Your task to perform on an android device: Turn on the flashlight Image 0: 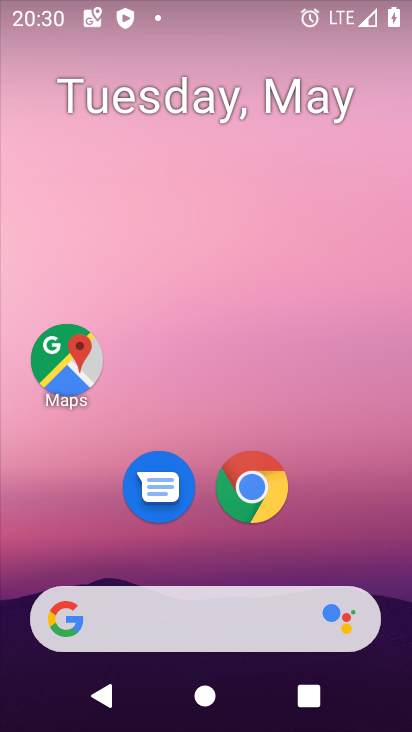
Step 0: drag from (354, 505) to (336, 14)
Your task to perform on an android device: Turn on the flashlight Image 1: 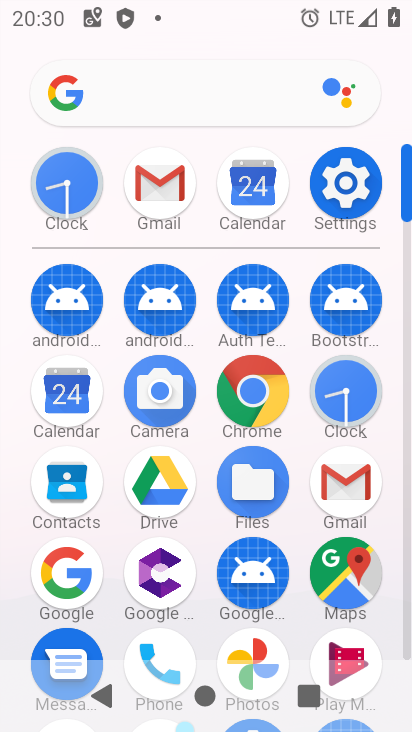
Step 1: click (344, 213)
Your task to perform on an android device: Turn on the flashlight Image 2: 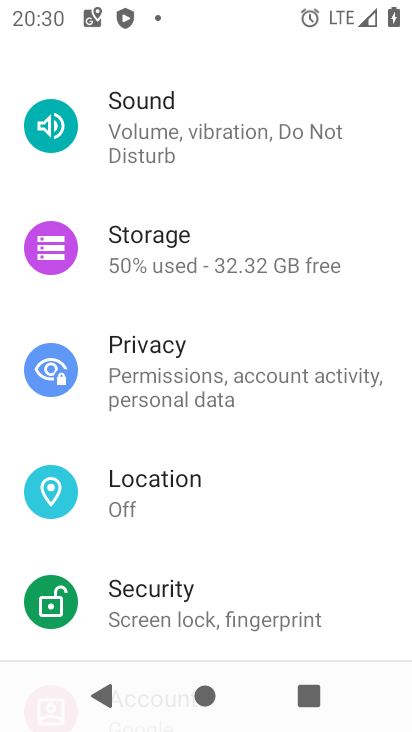
Step 2: click (152, 102)
Your task to perform on an android device: Turn on the flashlight Image 3: 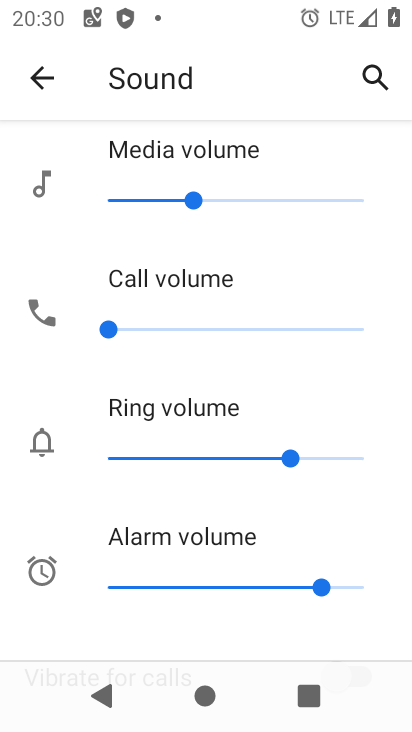
Step 3: task complete